Your task to perform on an android device: Go to Amazon Image 0: 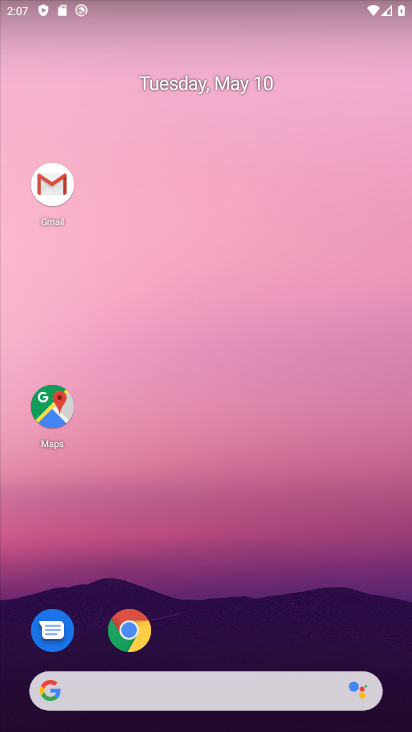
Step 0: click (129, 633)
Your task to perform on an android device: Go to Amazon Image 1: 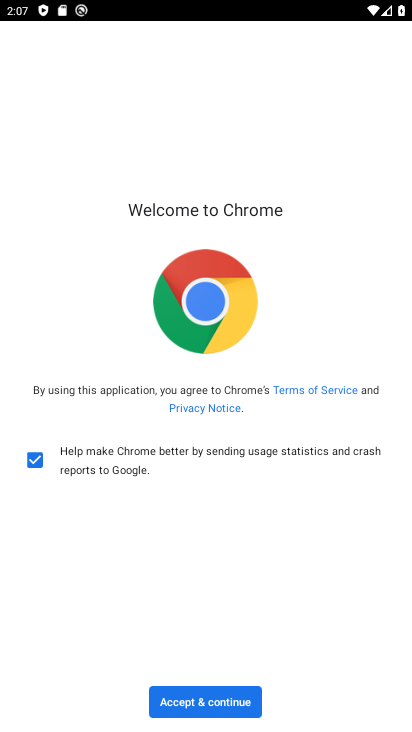
Step 1: click (191, 690)
Your task to perform on an android device: Go to Amazon Image 2: 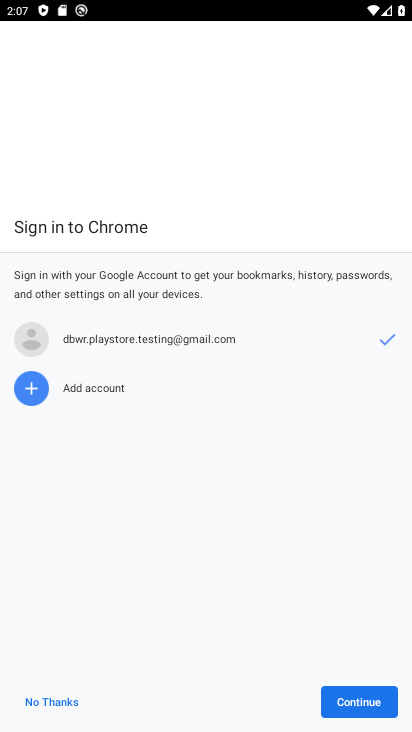
Step 2: click (329, 696)
Your task to perform on an android device: Go to Amazon Image 3: 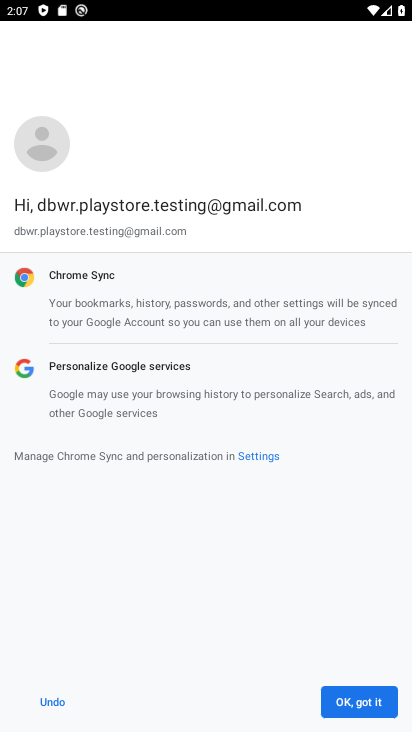
Step 3: click (349, 691)
Your task to perform on an android device: Go to Amazon Image 4: 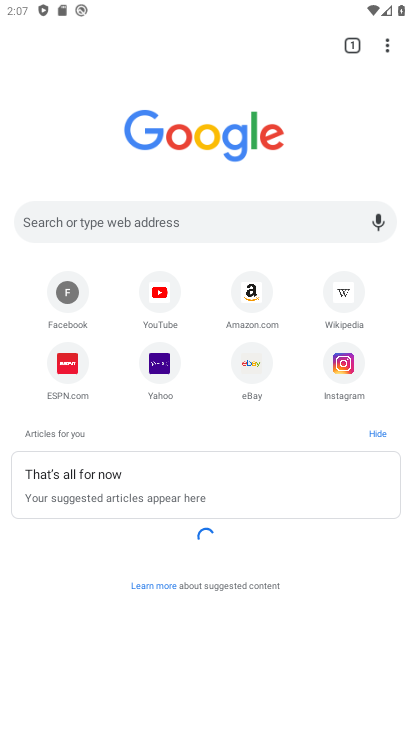
Step 4: click (249, 301)
Your task to perform on an android device: Go to Amazon Image 5: 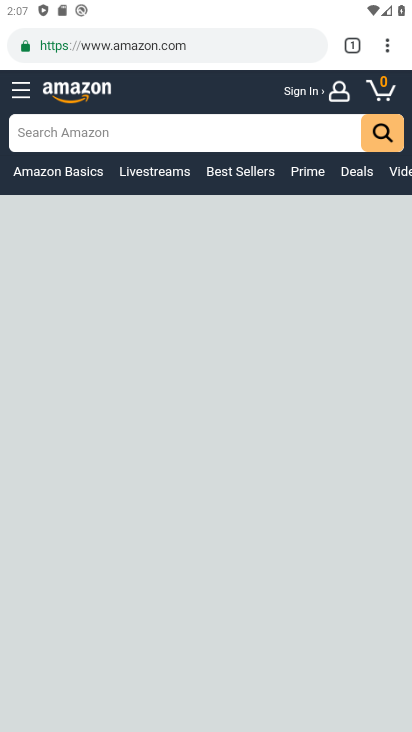
Step 5: task complete